Your task to perform on an android device: Go to Android settings Image 0: 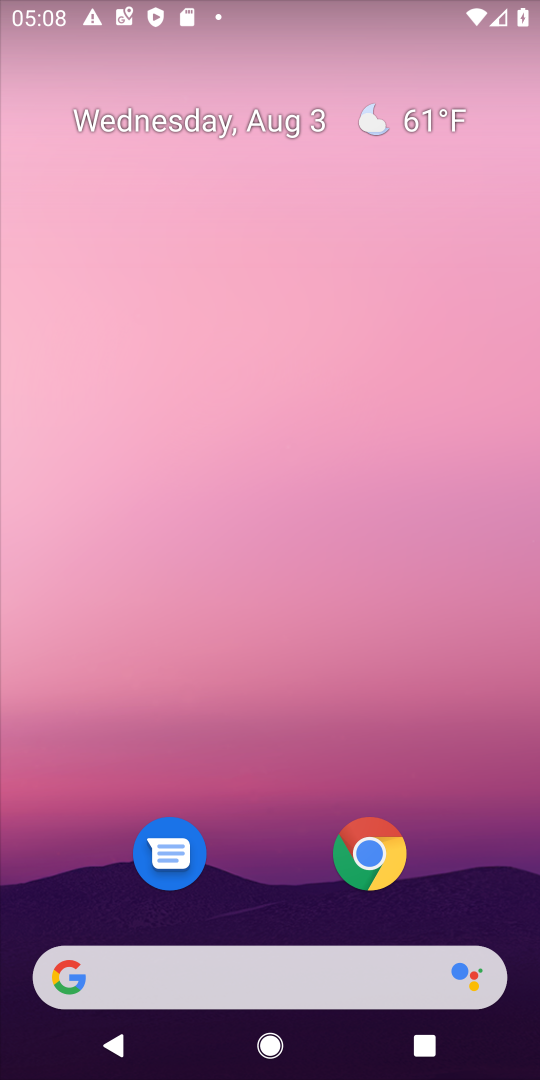
Step 0: drag from (286, 526) to (307, 37)
Your task to perform on an android device: Go to Android settings Image 1: 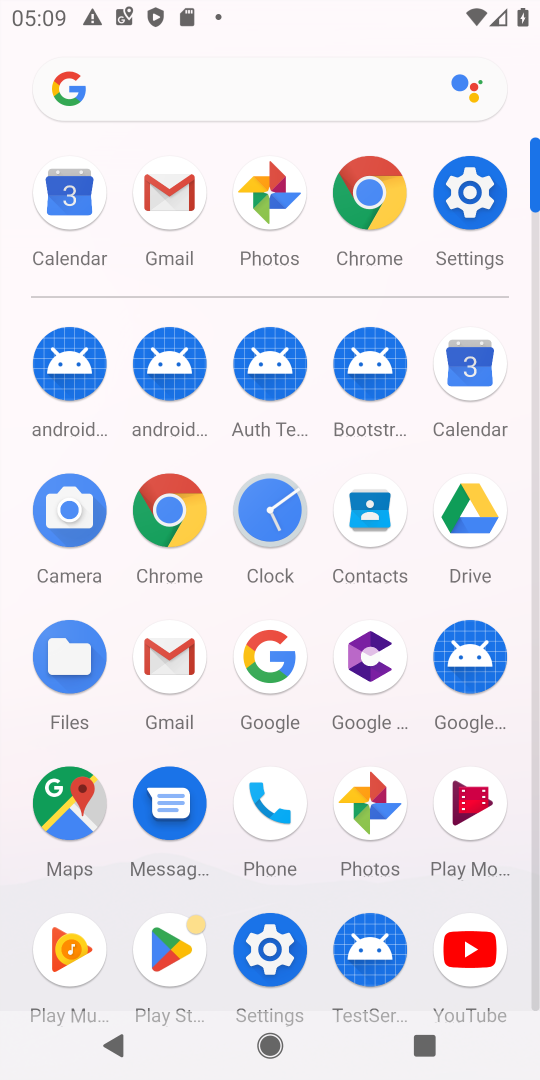
Step 1: click (472, 187)
Your task to perform on an android device: Go to Android settings Image 2: 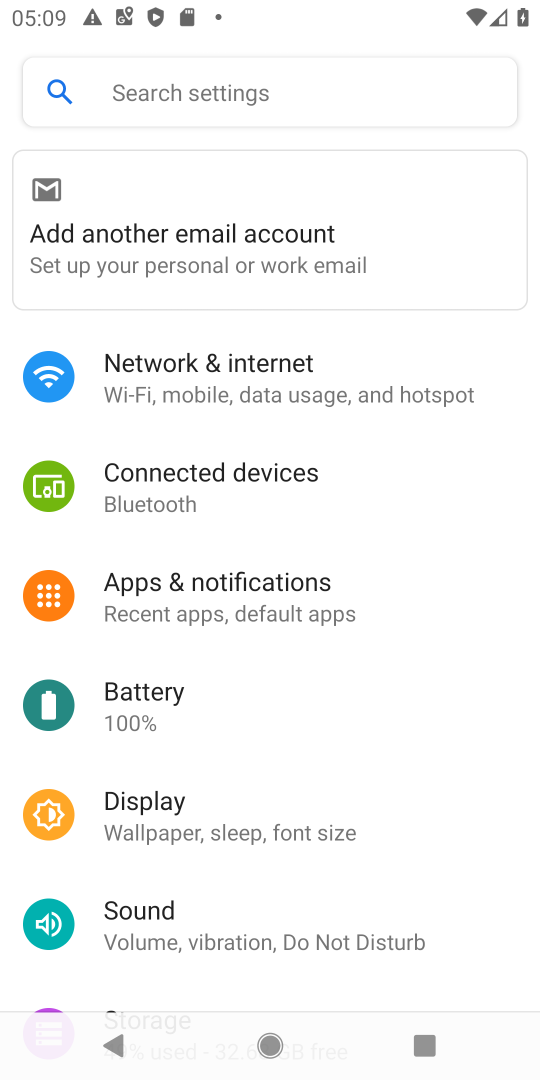
Step 2: task complete